Your task to perform on an android device: Do I have any events this weekend? Image 0: 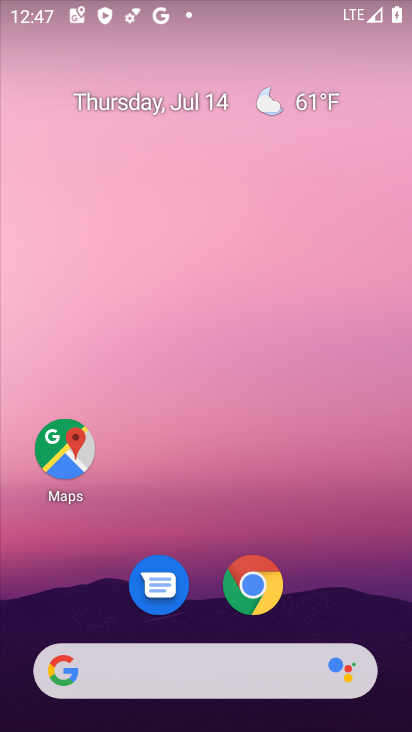
Step 0: drag from (319, 594) to (295, 33)
Your task to perform on an android device: Do I have any events this weekend? Image 1: 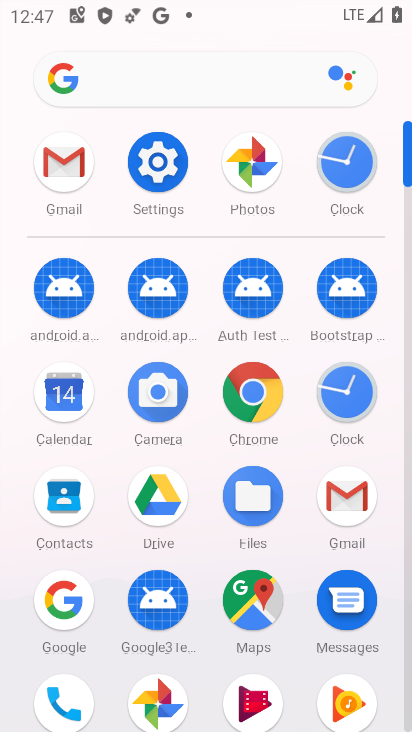
Step 1: click (56, 391)
Your task to perform on an android device: Do I have any events this weekend? Image 2: 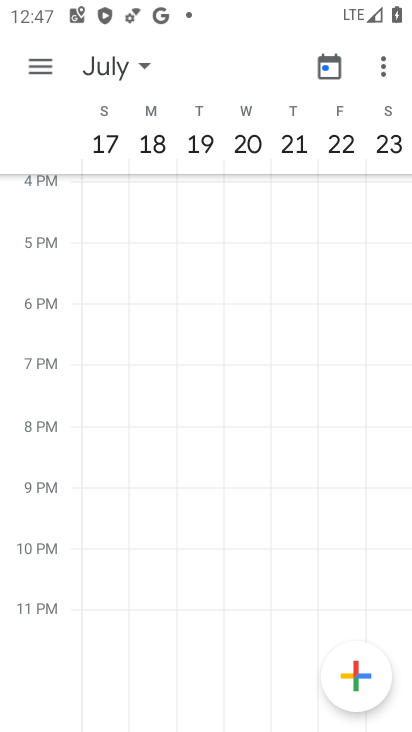
Step 2: task complete